Your task to perform on an android device: Show me popular videos on Youtube Image 0: 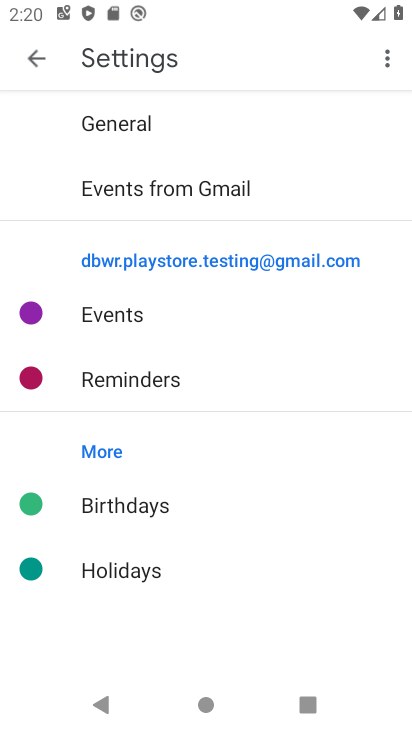
Step 0: press home button
Your task to perform on an android device: Show me popular videos on Youtube Image 1: 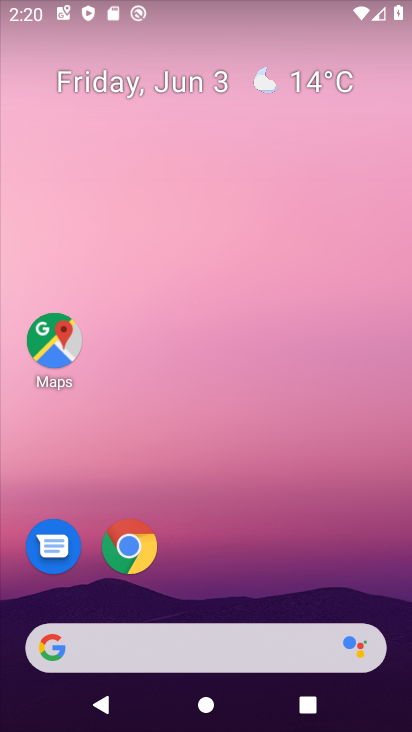
Step 1: drag from (279, 547) to (251, 6)
Your task to perform on an android device: Show me popular videos on Youtube Image 2: 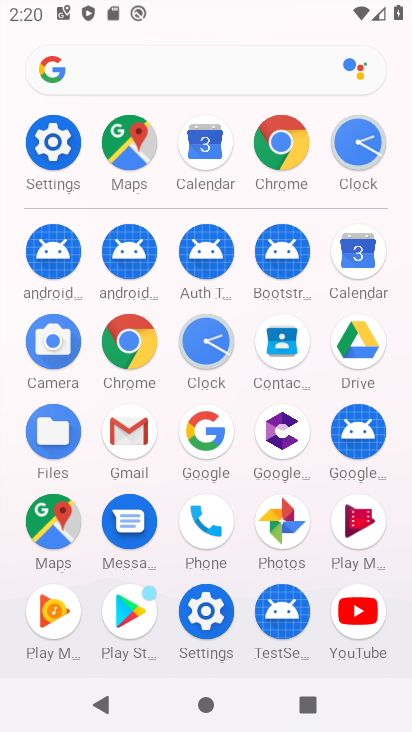
Step 2: click (357, 617)
Your task to perform on an android device: Show me popular videos on Youtube Image 3: 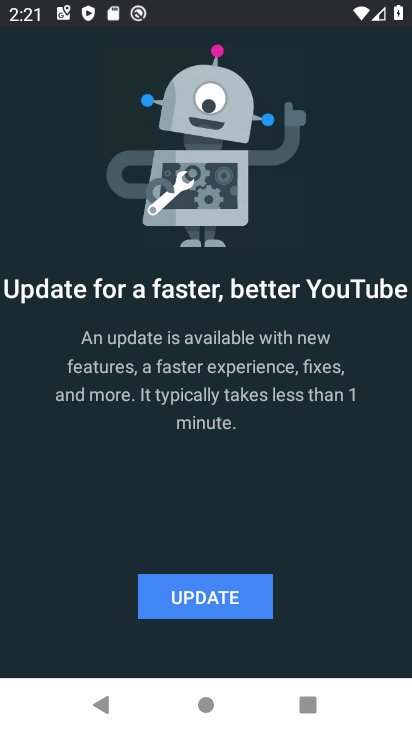
Step 3: click (163, 597)
Your task to perform on an android device: Show me popular videos on Youtube Image 4: 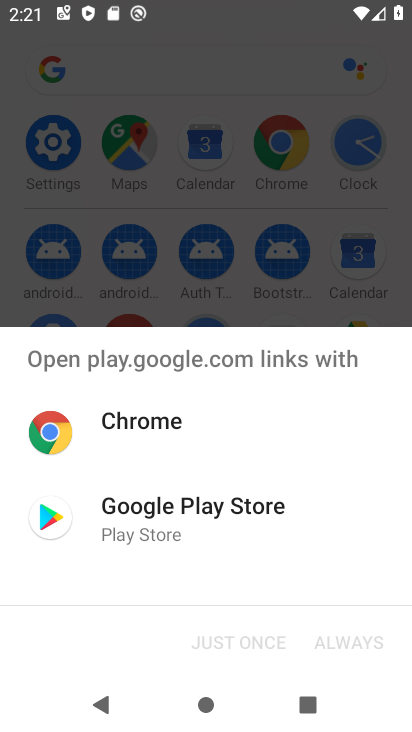
Step 4: click (107, 510)
Your task to perform on an android device: Show me popular videos on Youtube Image 5: 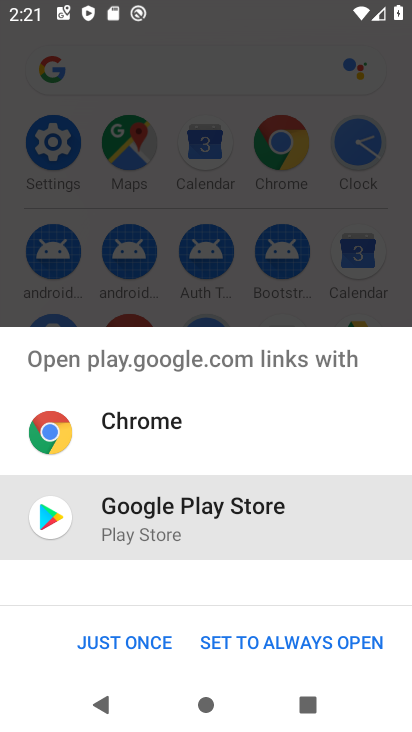
Step 5: click (101, 633)
Your task to perform on an android device: Show me popular videos on Youtube Image 6: 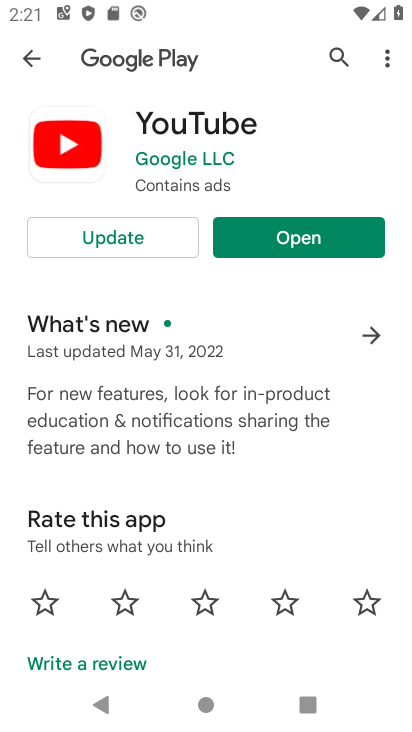
Step 6: click (114, 252)
Your task to perform on an android device: Show me popular videos on Youtube Image 7: 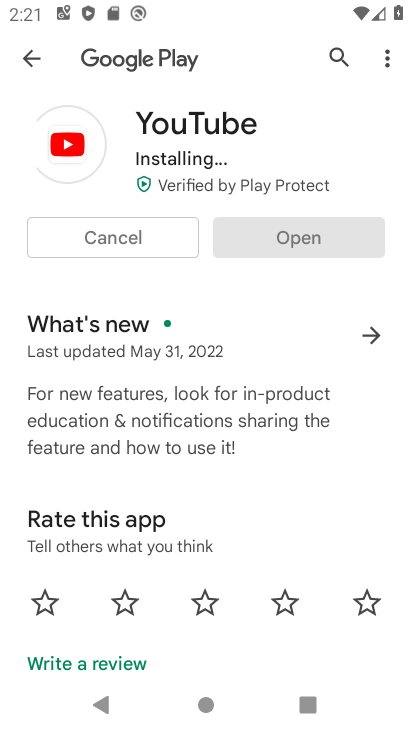
Step 7: task complete